Your task to perform on an android device: all mails in gmail Image 0: 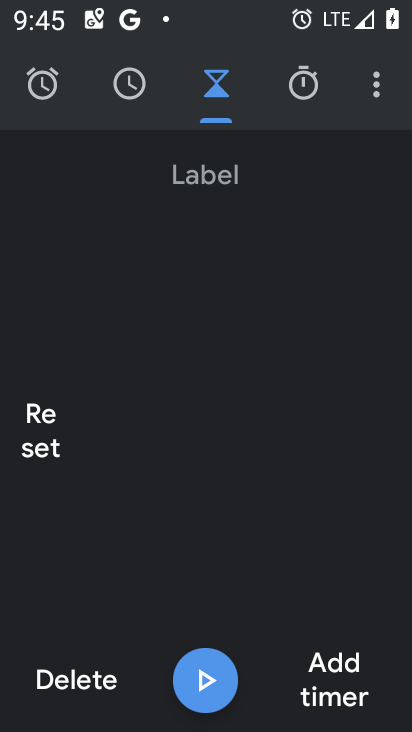
Step 0: press home button
Your task to perform on an android device: all mails in gmail Image 1: 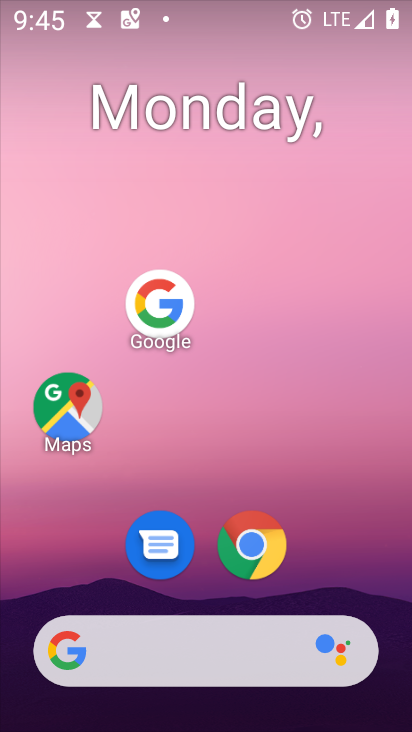
Step 1: drag from (198, 608) to (310, 112)
Your task to perform on an android device: all mails in gmail Image 2: 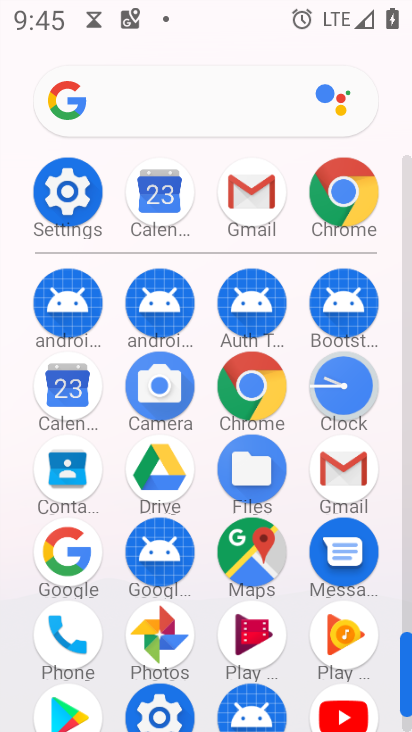
Step 2: click (262, 201)
Your task to perform on an android device: all mails in gmail Image 3: 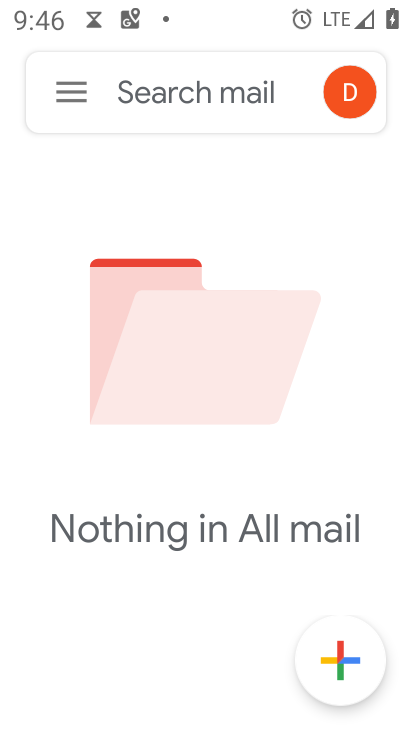
Step 3: task complete